Your task to perform on an android device: stop showing notifications on the lock screen Image 0: 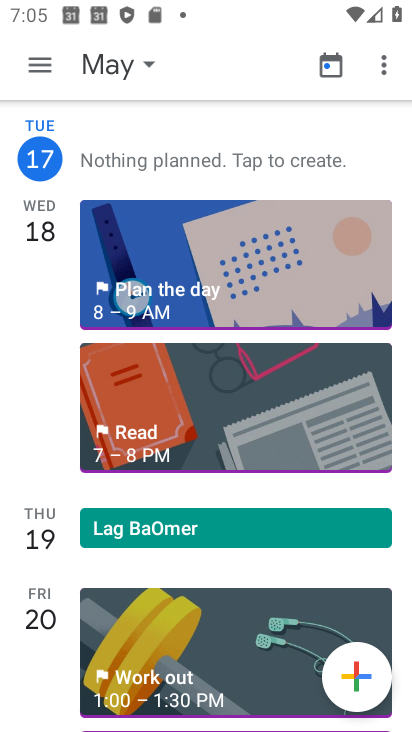
Step 0: press home button
Your task to perform on an android device: stop showing notifications on the lock screen Image 1: 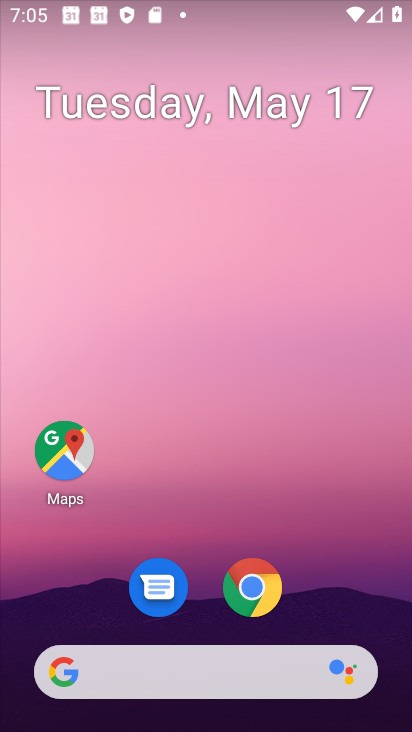
Step 1: drag from (213, 691) to (198, 147)
Your task to perform on an android device: stop showing notifications on the lock screen Image 2: 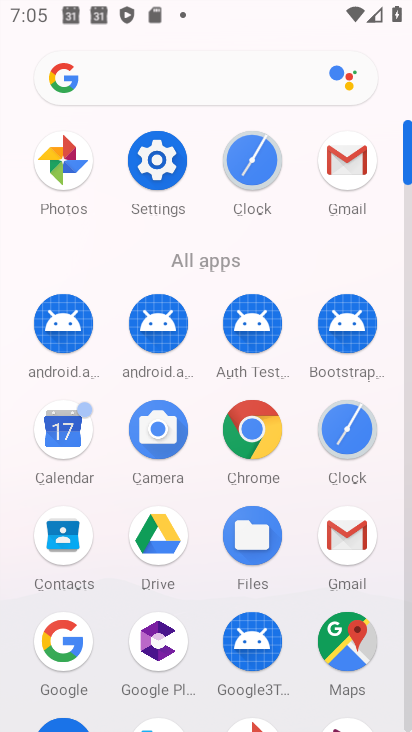
Step 2: click (165, 173)
Your task to perform on an android device: stop showing notifications on the lock screen Image 3: 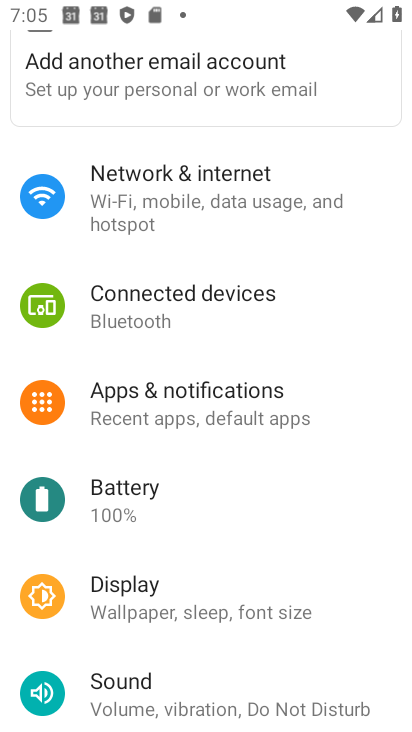
Step 3: drag from (172, 144) to (236, 316)
Your task to perform on an android device: stop showing notifications on the lock screen Image 4: 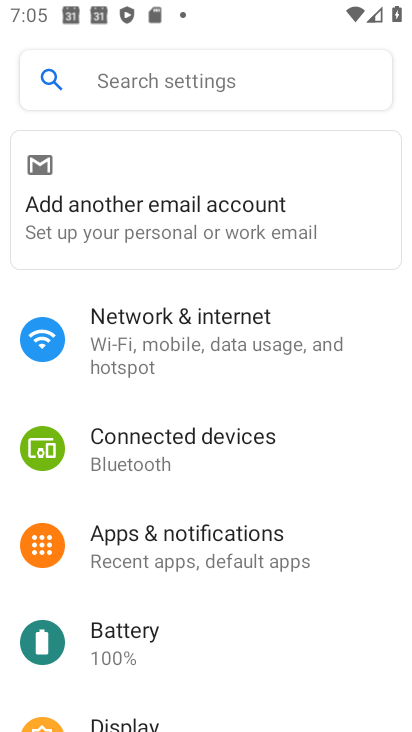
Step 4: click (164, 88)
Your task to perform on an android device: stop showing notifications on the lock screen Image 5: 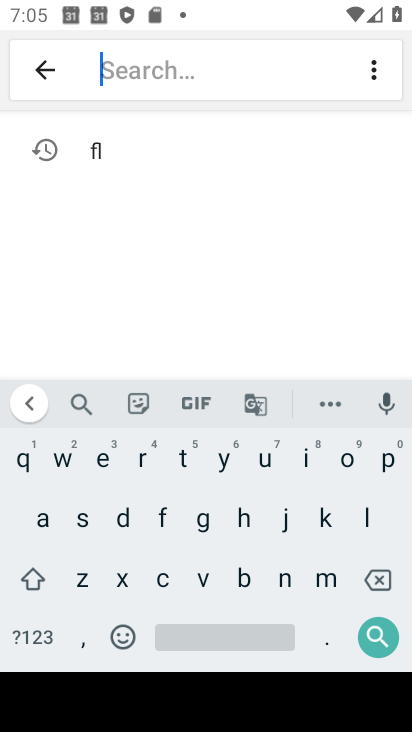
Step 5: click (286, 577)
Your task to perform on an android device: stop showing notifications on the lock screen Image 6: 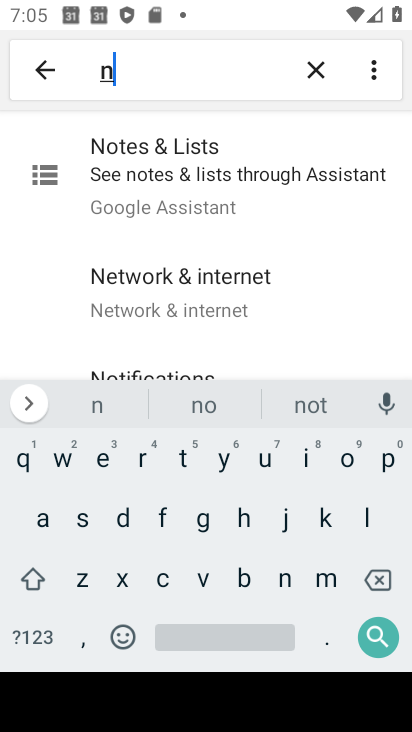
Step 6: click (335, 461)
Your task to perform on an android device: stop showing notifications on the lock screen Image 7: 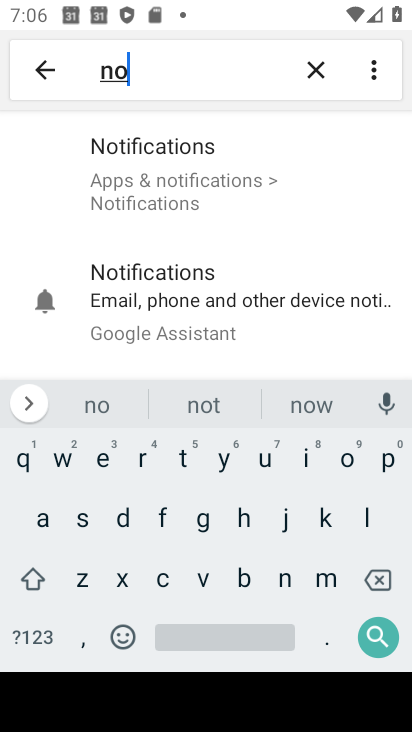
Step 7: click (153, 181)
Your task to perform on an android device: stop showing notifications on the lock screen Image 8: 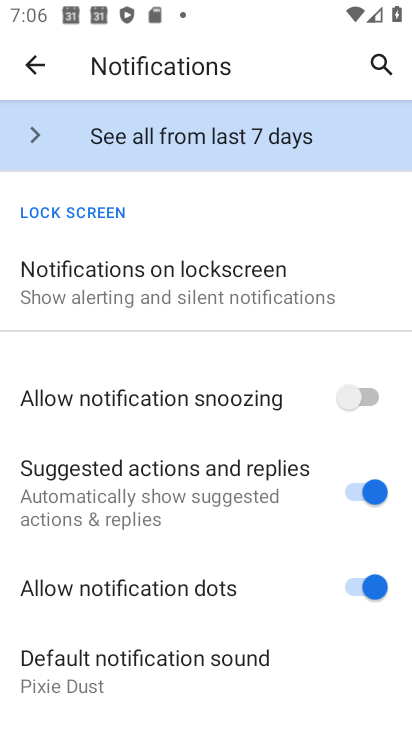
Step 8: click (105, 282)
Your task to perform on an android device: stop showing notifications on the lock screen Image 9: 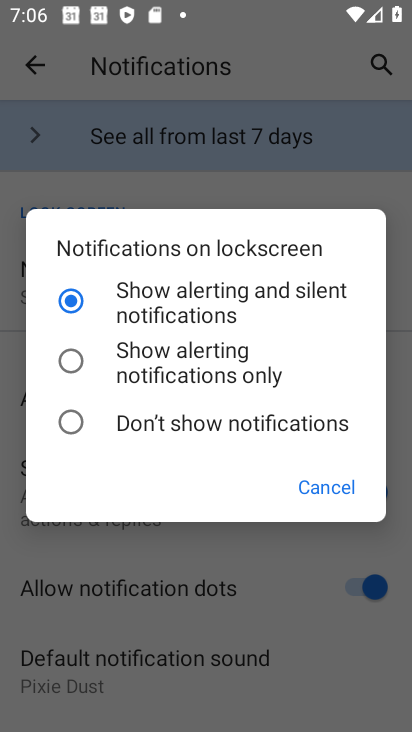
Step 9: click (103, 417)
Your task to perform on an android device: stop showing notifications on the lock screen Image 10: 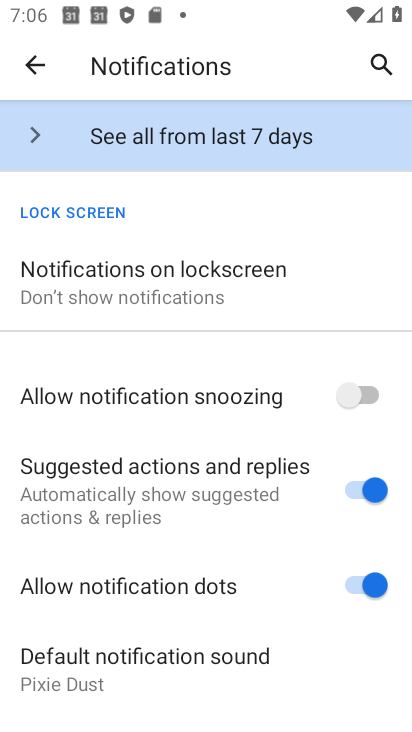
Step 10: task complete